Your task to perform on an android device: Open eBay Image 0: 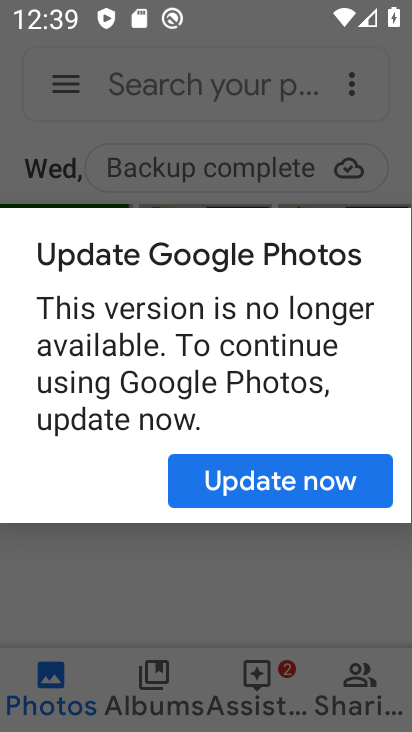
Step 0: press back button
Your task to perform on an android device: Open eBay Image 1: 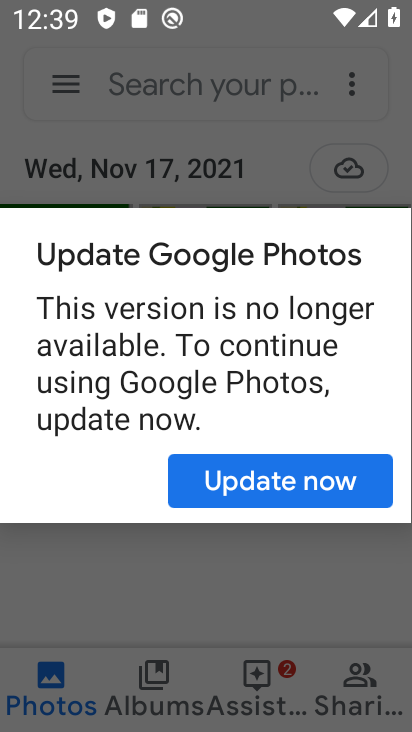
Step 1: press back button
Your task to perform on an android device: Open eBay Image 2: 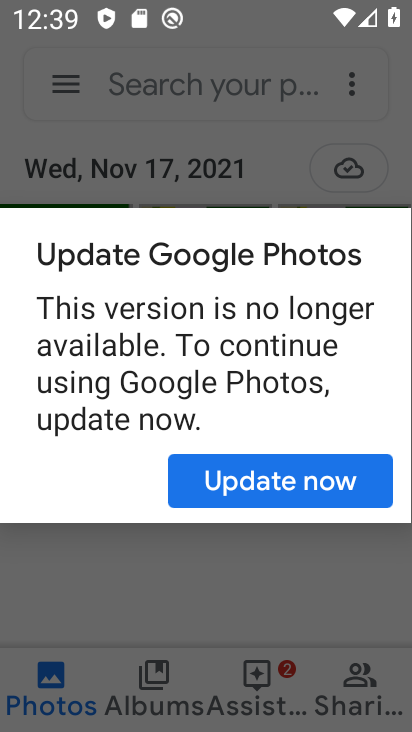
Step 2: press home button
Your task to perform on an android device: Open eBay Image 3: 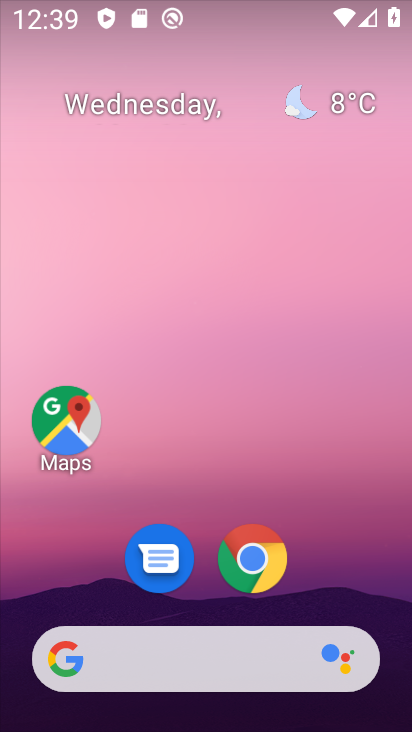
Step 3: click (253, 558)
Your task to perform on an android device: Open eBay Image 4: 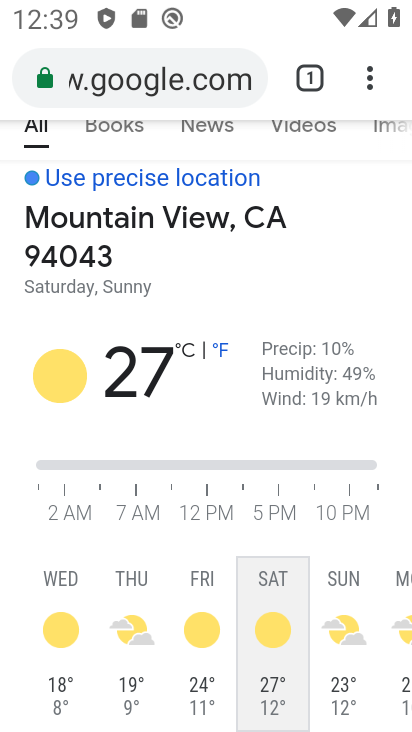
Step 4: click (164, 72)
Your task to perform on an android device: Open eBay Image 5: 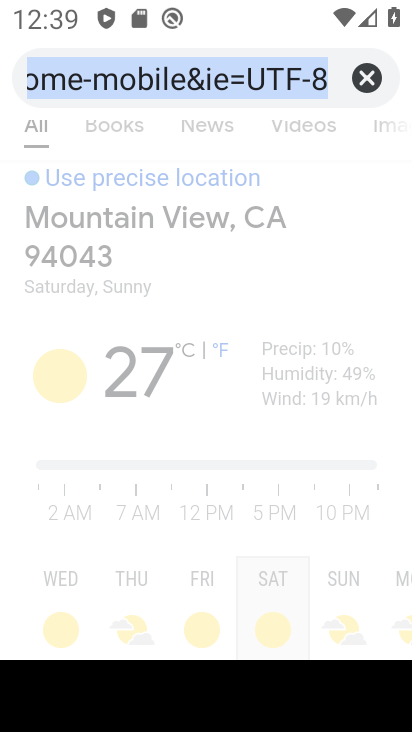
Step 5: click (367, 81)
Your task to perform on an android device: Open eBay Image 6: 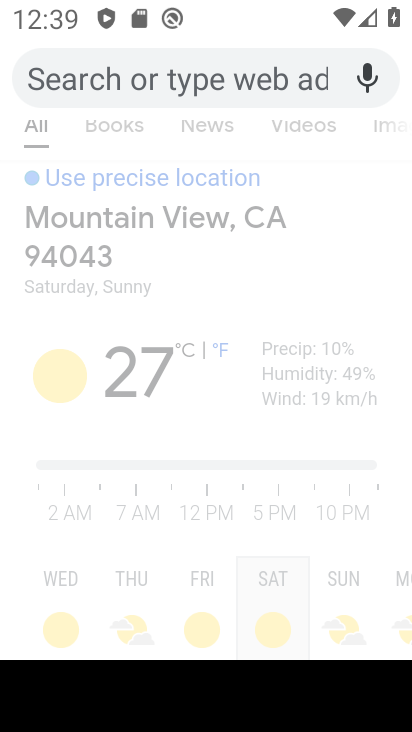
Step 6: type "eBay"
Your task to perform on an android device: Open eBay Image 7: 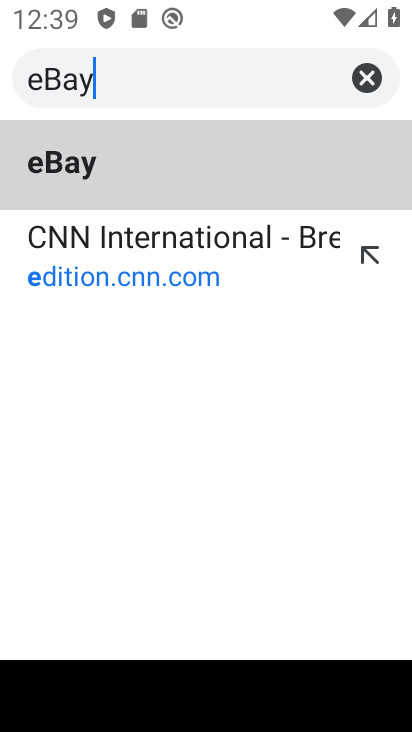
Step 7: type ""
Your task to perform on an android device: Open eBay Image 8: 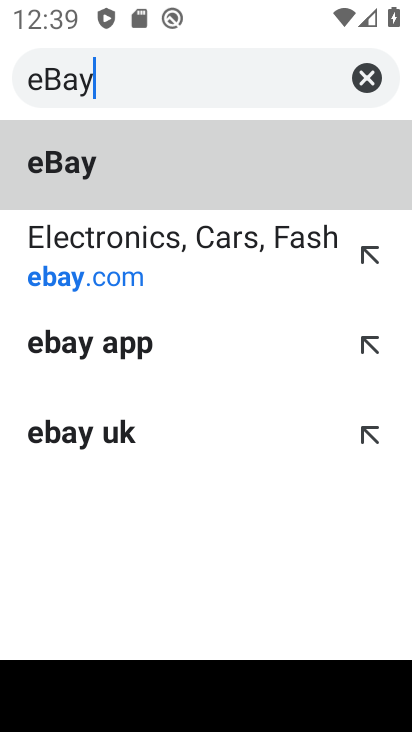
Step 8: click (201, 181)
Your task to perform on an android device: Open eBay Image 9: 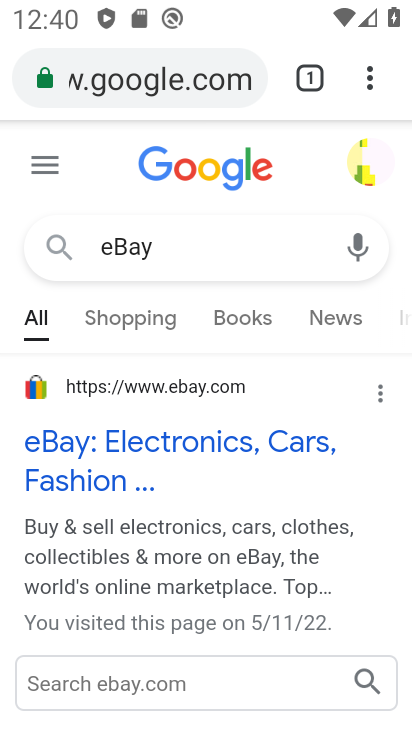
Step 9: click (77, 452)
Your task to perform on an android device: Open eBay Image 10: 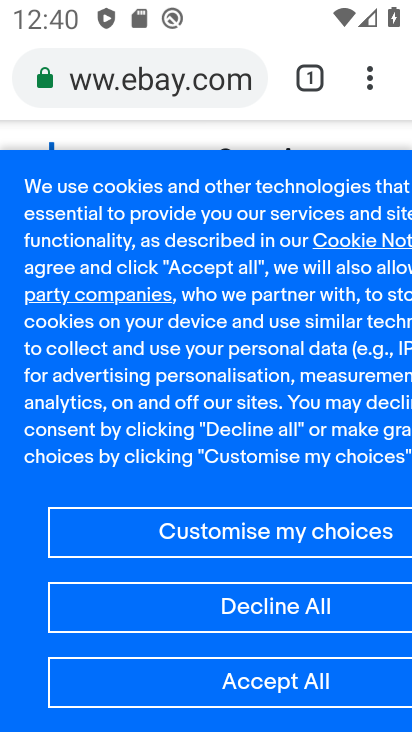
Step 10: click (265, 689)
Your task to perform on an android device: Open eBay Image 11: 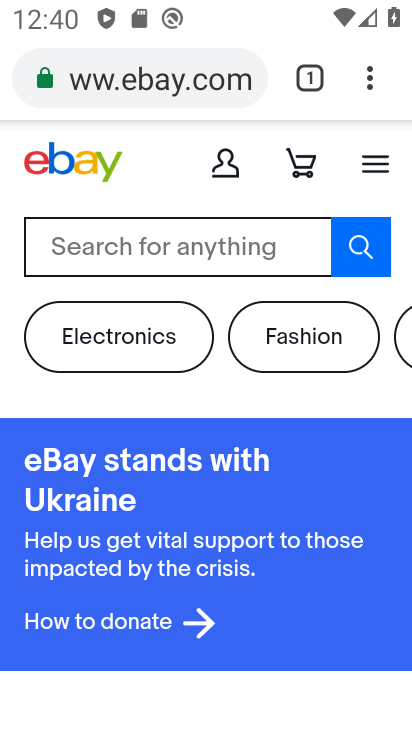
Step 11: task complete